Your task to perform on an android device: Open battery settings Image 0: 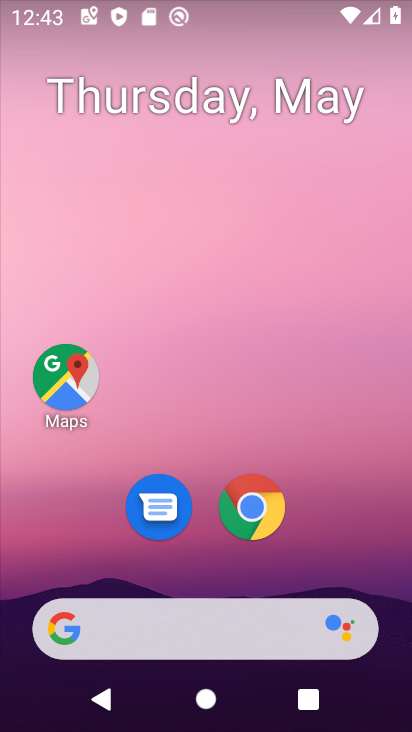
Step 0: drag from (237, 202) to (279, 23)
Your task to perform on an android device: Open battery settings Image 1: 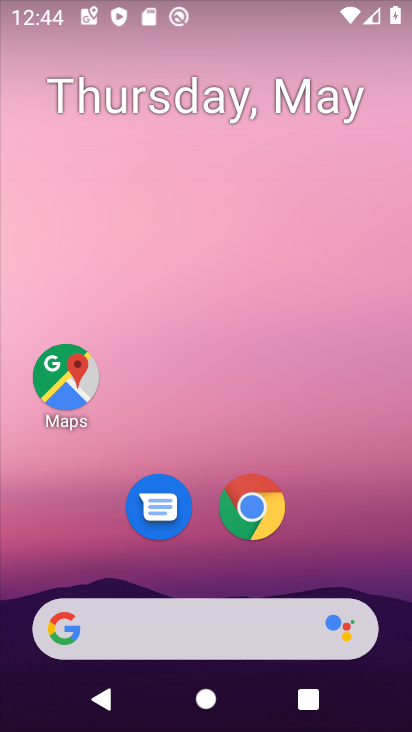
Step 1: drag from (194, 563) to (274, 6)
Your task to perform on an android device: Open battery settings Image 2: 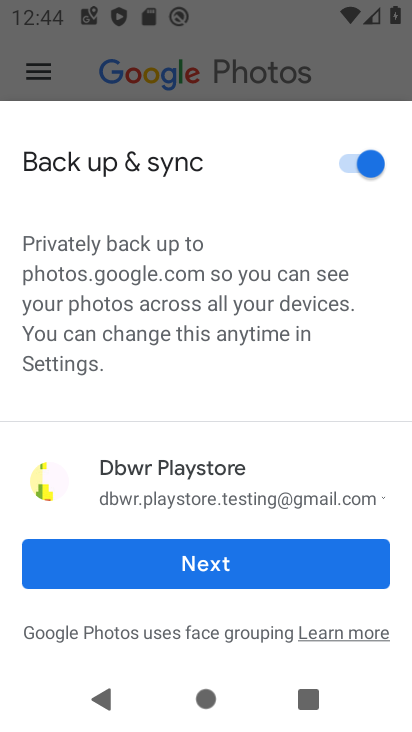
Step 2: press home button
Your task to perform on an android device: Open battery settings Image 3: 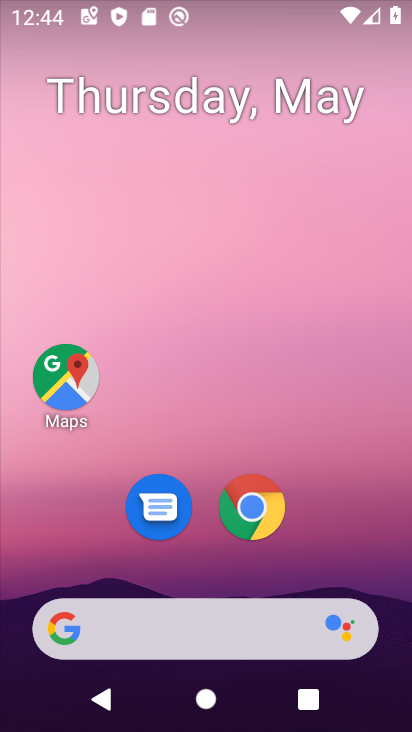
Step 3: drag from (209, 569) to (219, 8)
Your task to perform on an android device: Open battery settings Image 4: 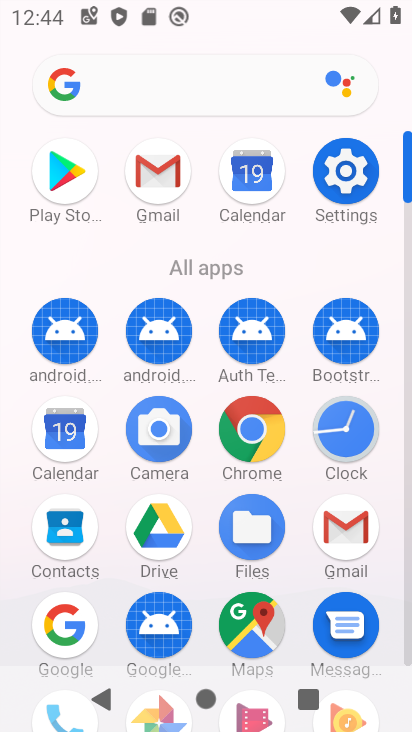
Step 4: click (342, 183)
Your task to perform on an android device: Open battery settings Image 5: 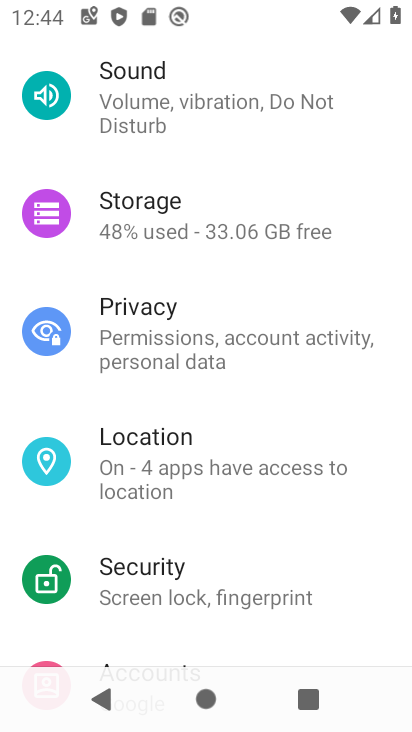
Step 5: drag from (190, 528) to (195, 74)
Your task to perform on an android device: Open battery settings Image 6: 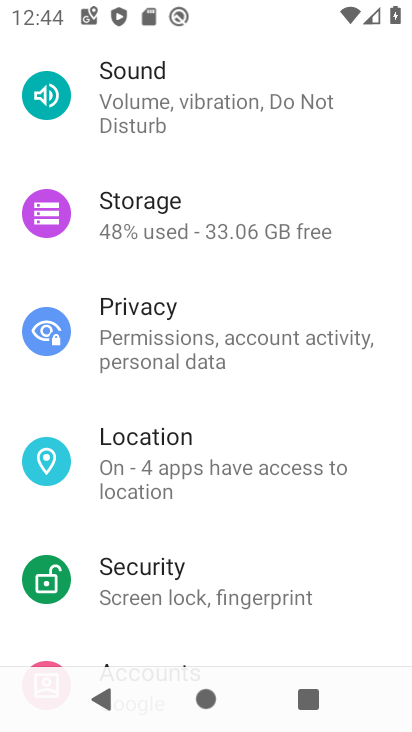
Step 6: drag from (199, 523) to (186, 163)
Your task to perform on an android device: Open battery settings Image 7: 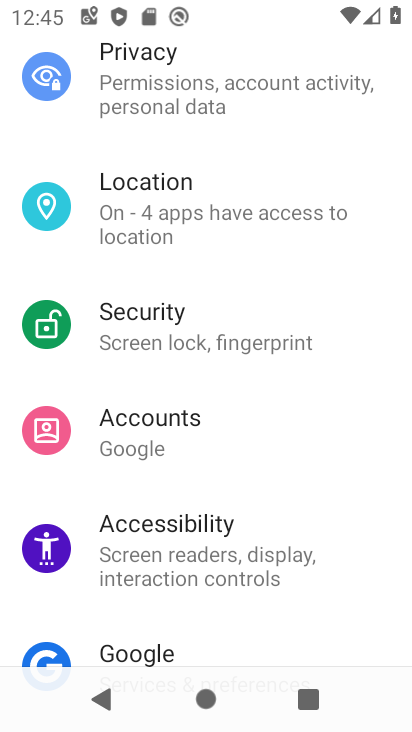
Step 7: drag from (180, 262) to (216, 508)
Your task to perform on an android device: Open battery settings Image 8: 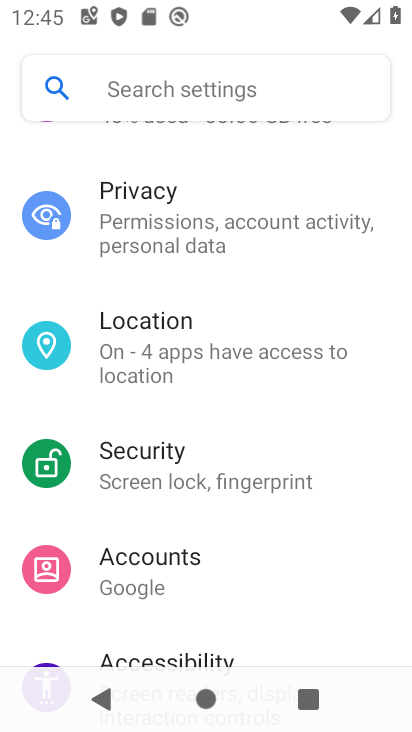
Step 8: drag from (155, 183) to (156, 517)
Your task to perform on an android device: Open battery settings Image 9: 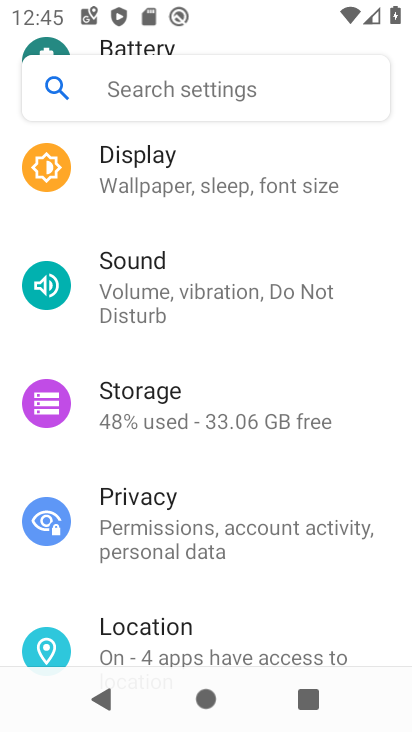
Step 9: drag from (166, 283) to (178, 476)
Your task to perform on an android device: Open battery settings Image 10: 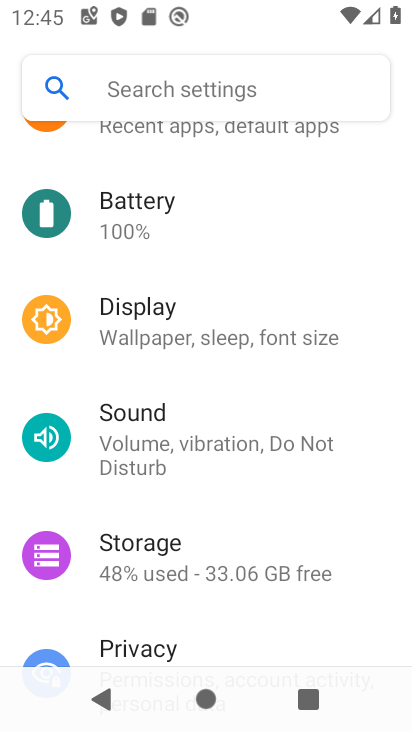
Step 10: click (136, 198)
Your task to perform on an android device: Open battery settings Image 11: 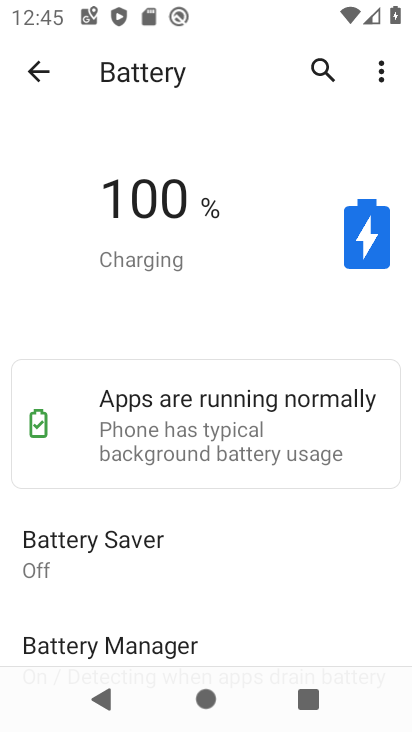
Step 11: task complete